Your task to perform on an android device: add a contact Image 0: 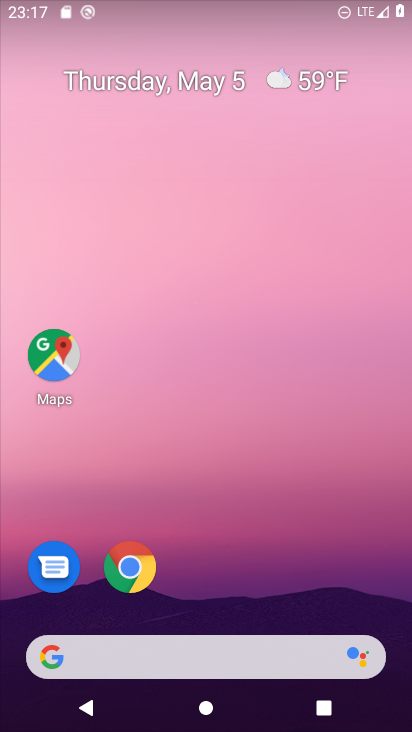
Step 0: drag from (229, 543) to (299, 1)
Your task to perform on an android device: add a contact Image 1: 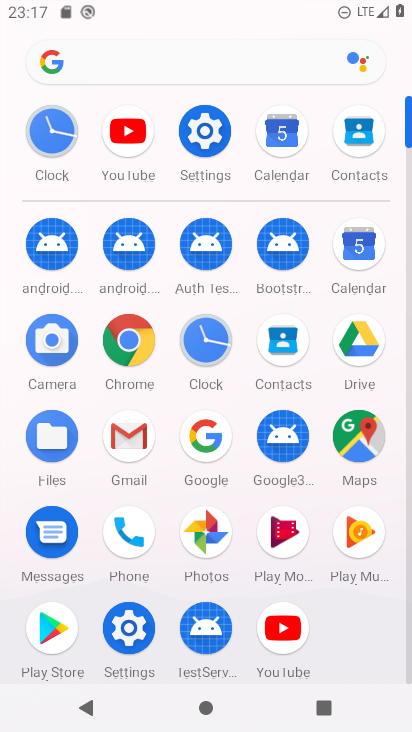
Step 1: click (288, 346)
Your task to perform on an android device: add a contact Image 2: 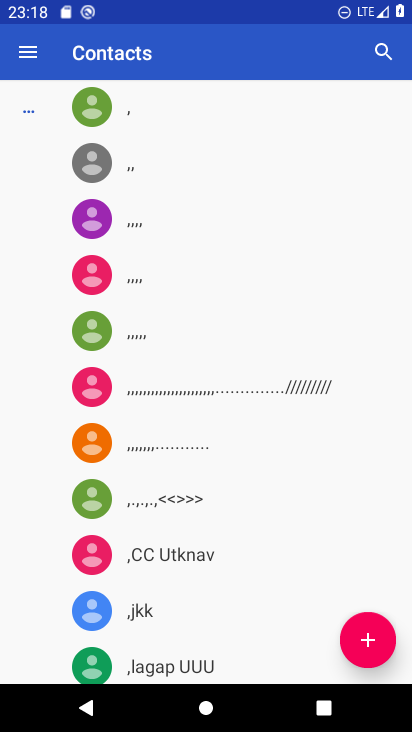
Step 2: click (356, 657)
Your task to perform on an android device: add a contact Image 3: 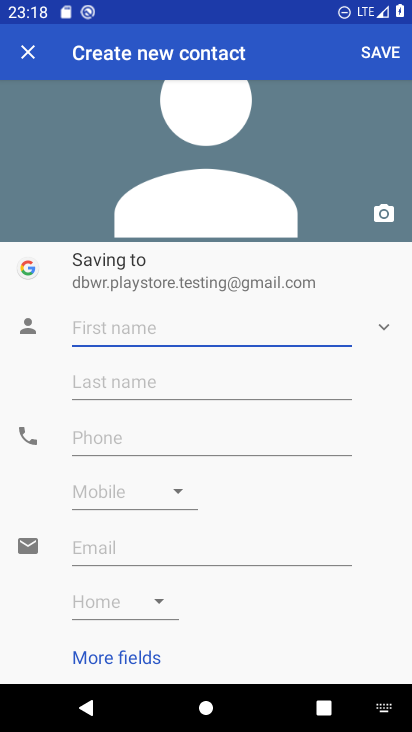
Step 3: click (163, 330)
Your task to perform on an android device: add a contact Image 4: 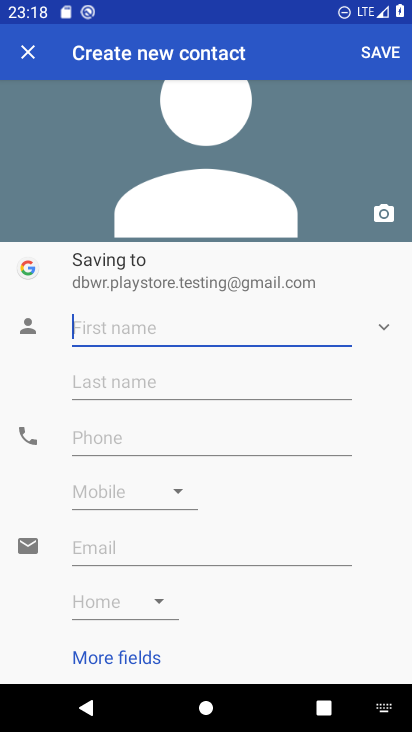
Step 4: type ""
Your task to perform on an android device: add a contact Image 5: 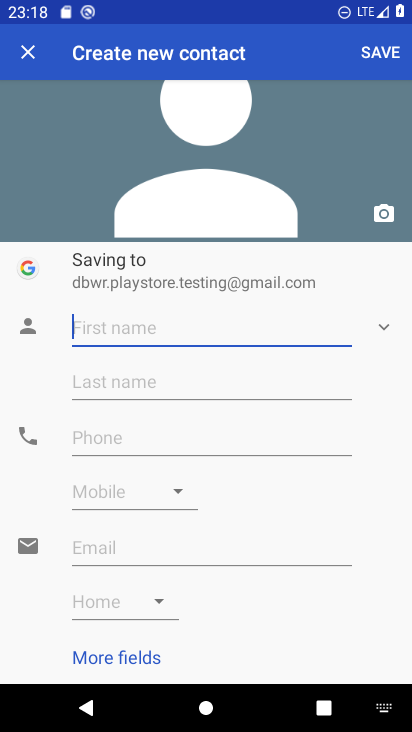
Step 5: click (146, 316)
Your task to perform on an android device: add a contact Image 6: 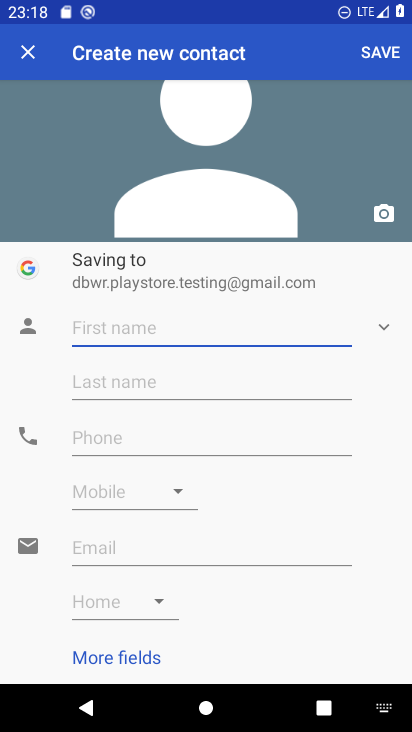
Step 6: type "ffb"
Your task to perform on an android device: add a contact Image 7: 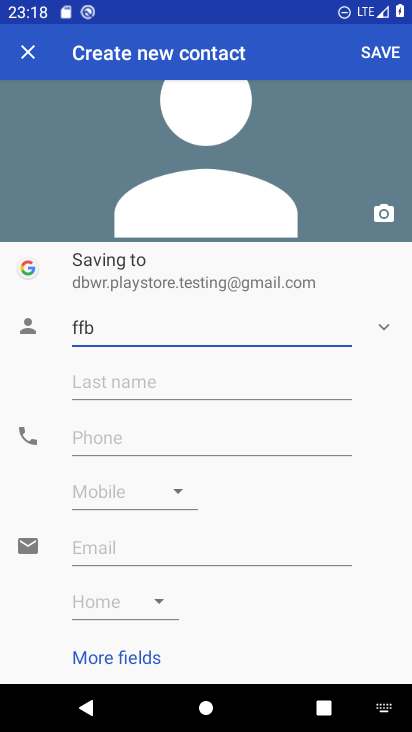
Step 7: click (111, 432)
Your task to perform on an android device: add a contact Image 8: 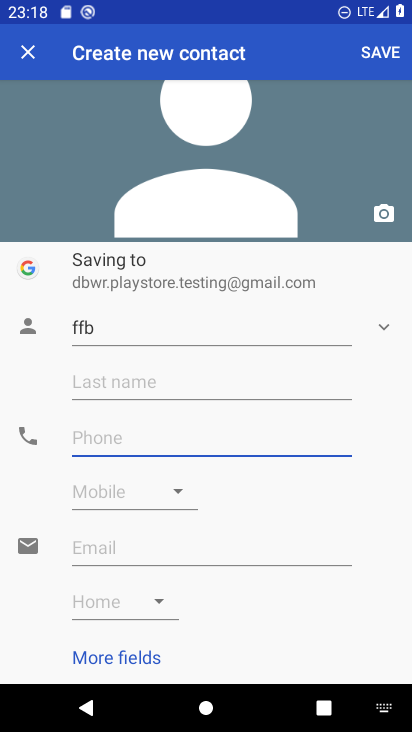
Step 8: type "6577"
Your task to perform on an android device: add a contact Image 9: 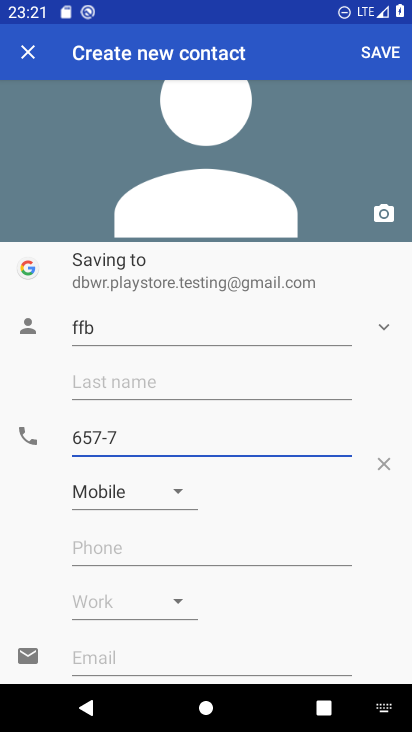
Step 9: click (395, 48)
Your task to perform on an android device: add a contact Image 10: 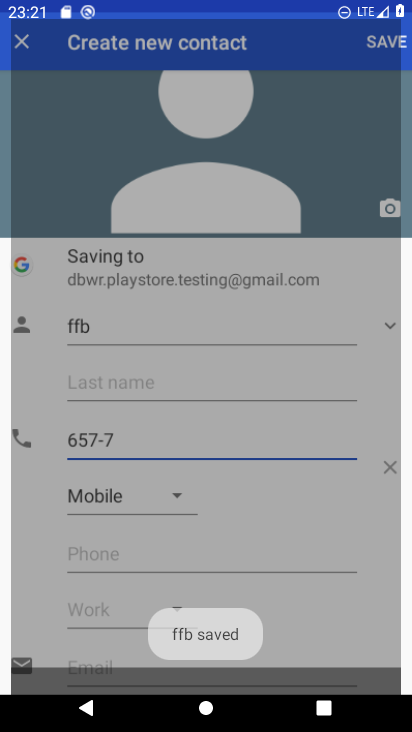
Step 10: task complete